Your task to perform on an android device: search for starred emails in the gmail app Image 0: 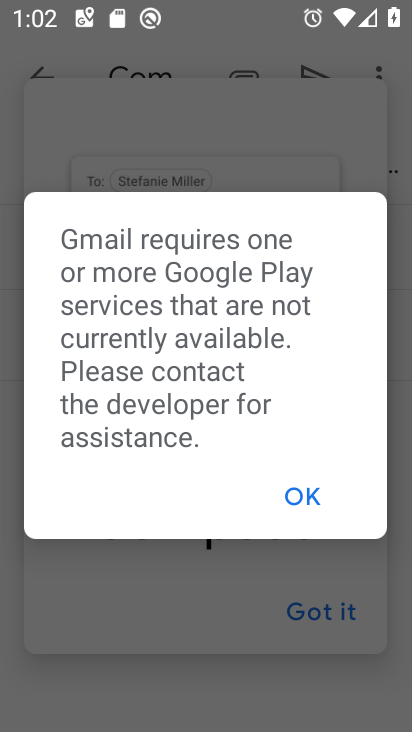
Step 0: press home button
Your task to perform on an android device: search for starred emails in the gmail app Image 1: 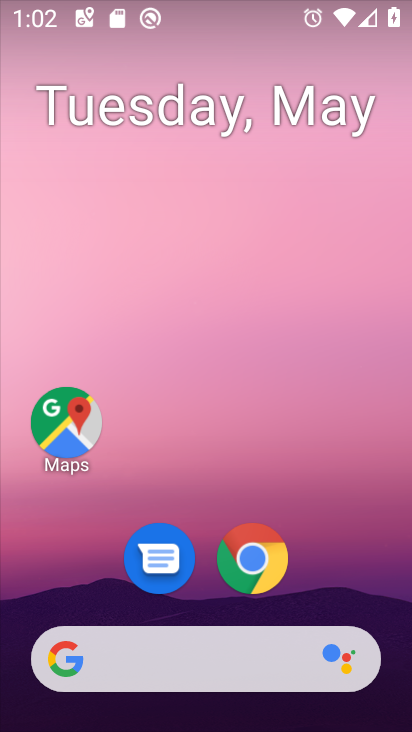
Step 1: drag from (360, 590) to (234, 101)
Your task to perform on an android device: search for starred emails in the gmail app Image 2: 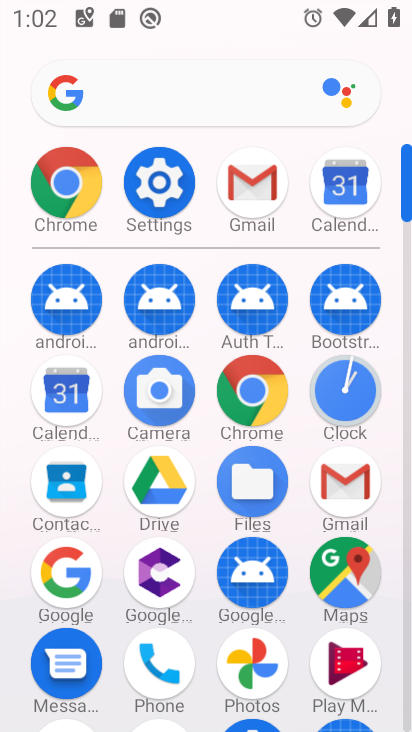
Step 2: click (263, 190)
Your task to perform on an android device: search for starred emails in the gmail app Image 3: 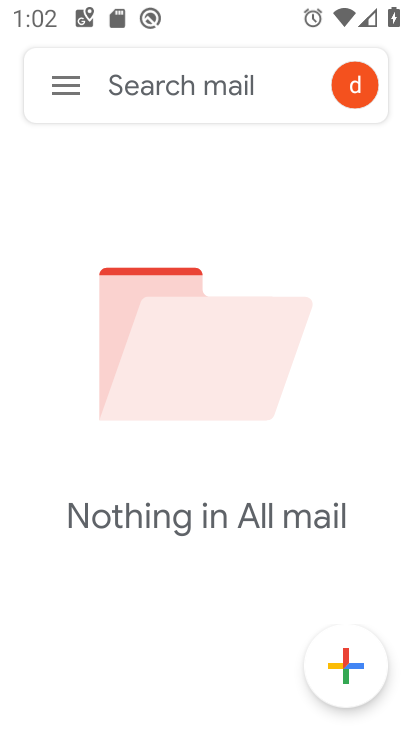
Step 3: click (66, 115)
Your task to perform on an android device: search for starred emails in the gmail app Image 4: 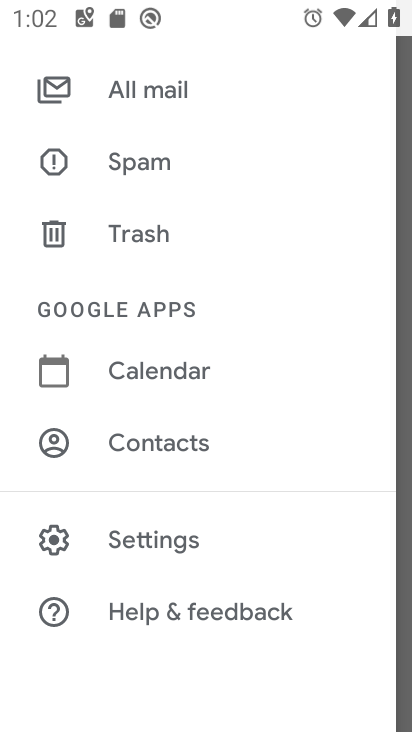
Step 4: drag from (193, 117) to (270, 638)
Your task to perform on an android device: search for starred emails in the gmail app Image 5: 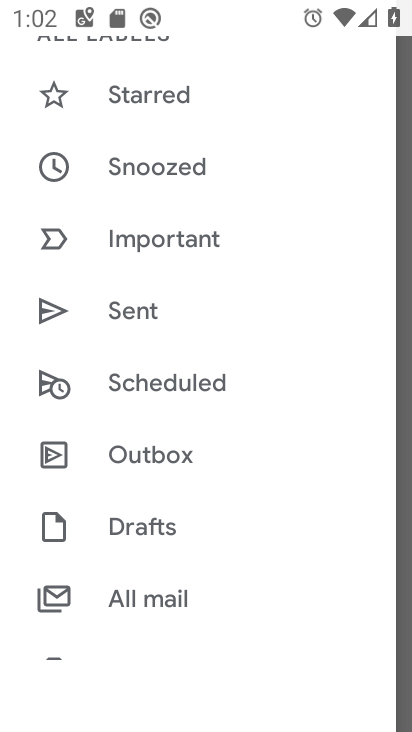
Step 5: click (181, 93)
Your task to perform on an android device: search for starred emails in the gmail app Image 6: 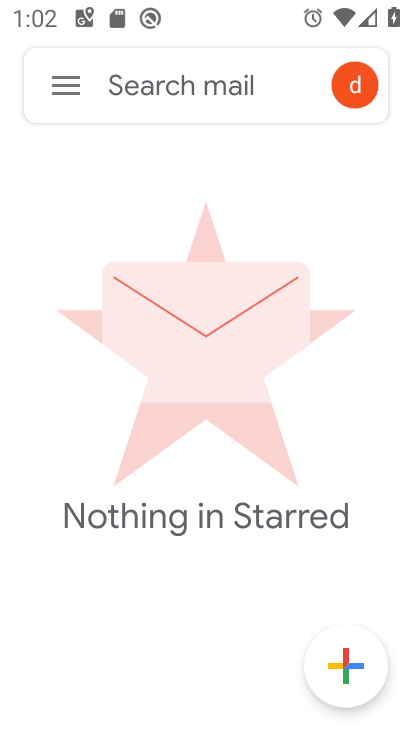
Step 6: task complete